Your task to perform on an android device: delete browsing data in the chrome app Image 0: 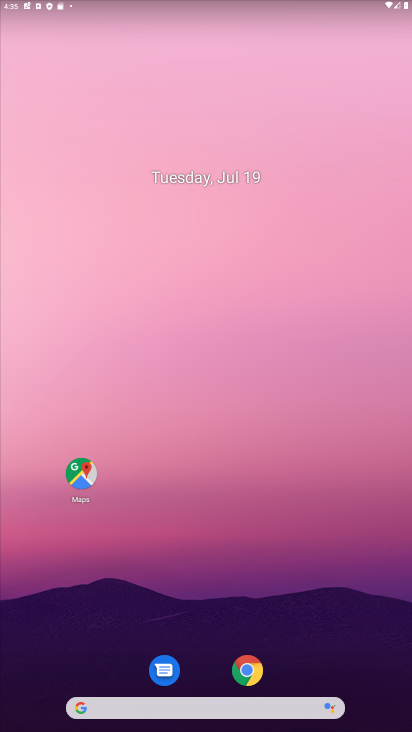
Step 0: drag from (299, 677) to (296, 1)
Your task to perform on an android device: delete browsing data in the chrome app Image 1: 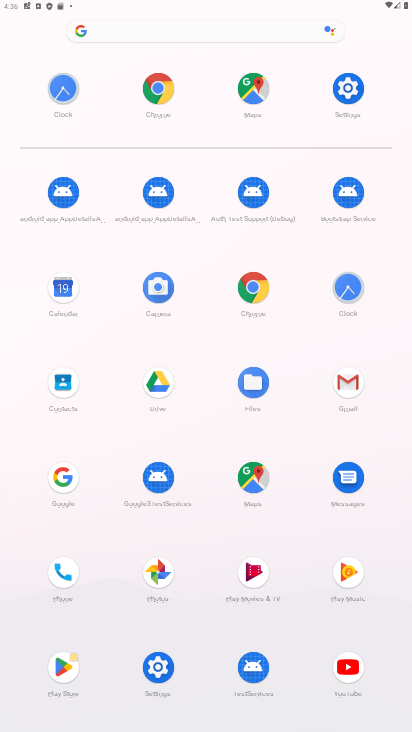
Step 1: click (260, 288)
Your task to perform on an android device: delete browsing data in the chrome app Image 2: 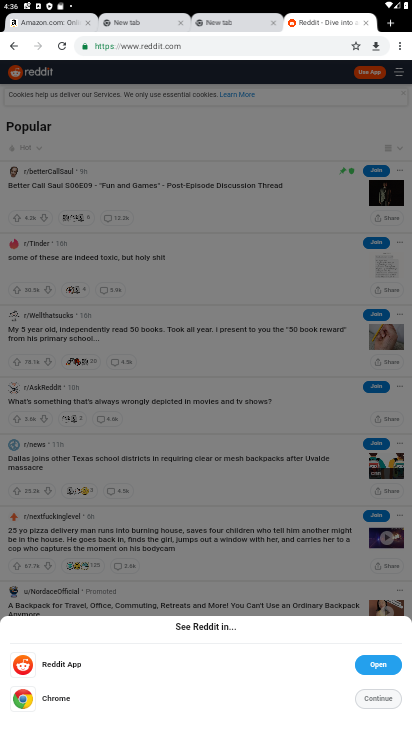
Step 2: drag from (403, 43) to (305, 310)
Your task to perform on an android device: delete browsing data in the chrome app Image 3: 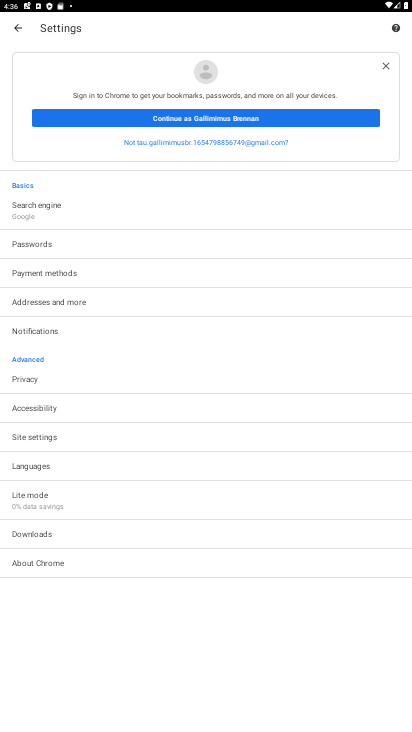
Step 3: click (42, 383)
Your task to perform on an android device: delete browsing data in the chrome app Image 4: 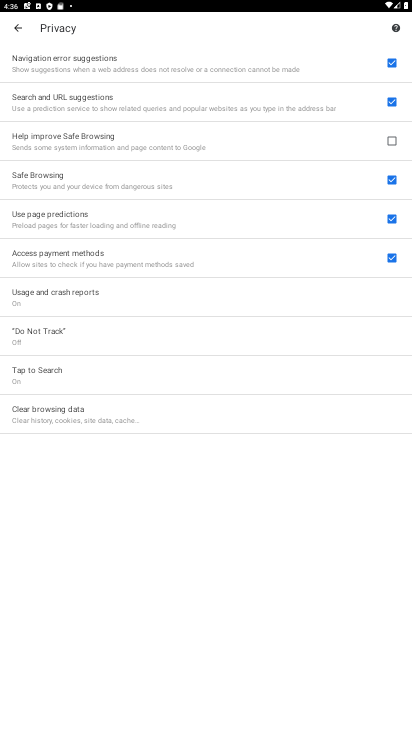
Step 4: click (62, 423)
Your task to perform on an android device: delete browsing data in the chrome app Image 5: 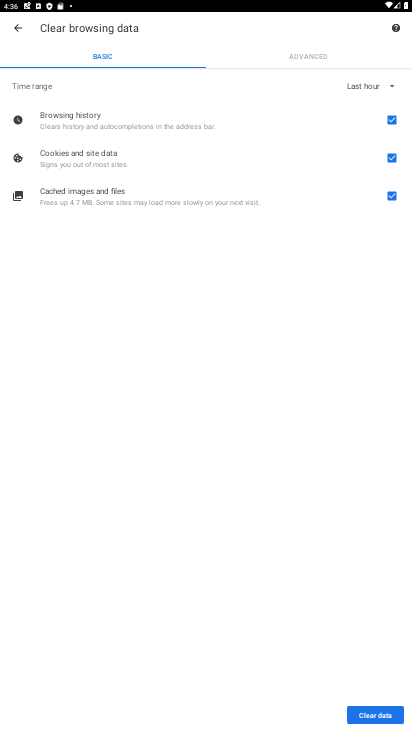
Step 5: click (391, 712)
Your task to perform on an android device: delete browsing data in the chrome app Image 6: 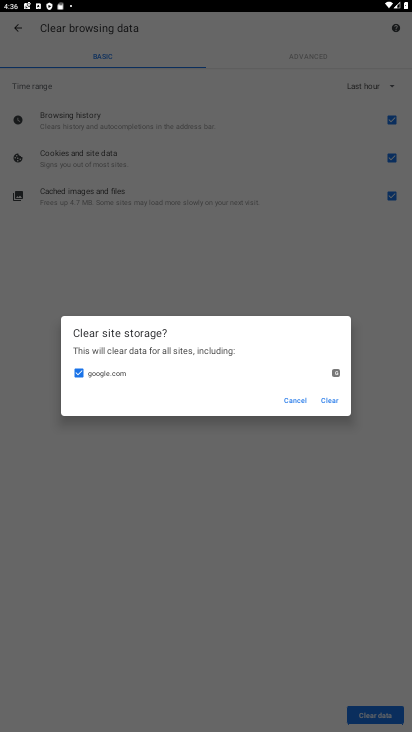
Step 6: click (337, 397)
Your task to perform on an android device: delete browsing data in the chrome app Image 7: 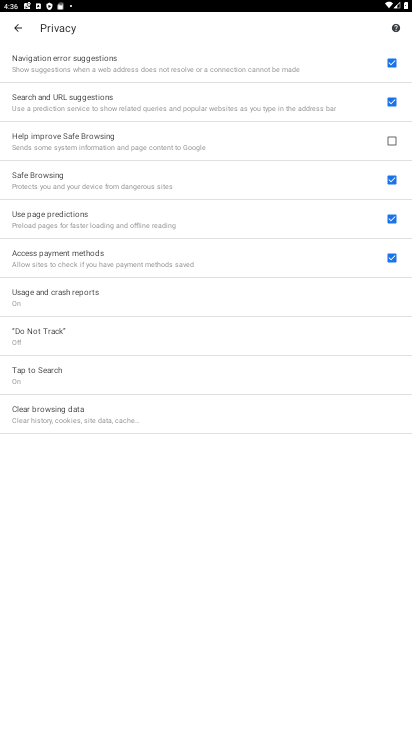
Step 7: task complete